Your task to perform on an android device: star an email in the gmail app Image 0: 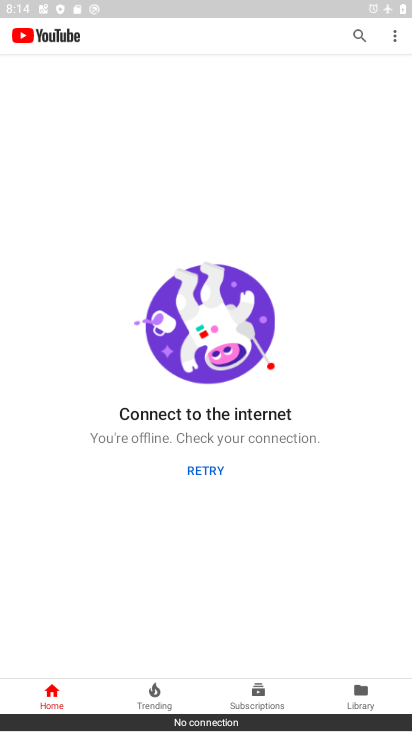
Step 0: press home button
Your task to perform on an android device: star an email in the gmail app Image 1: 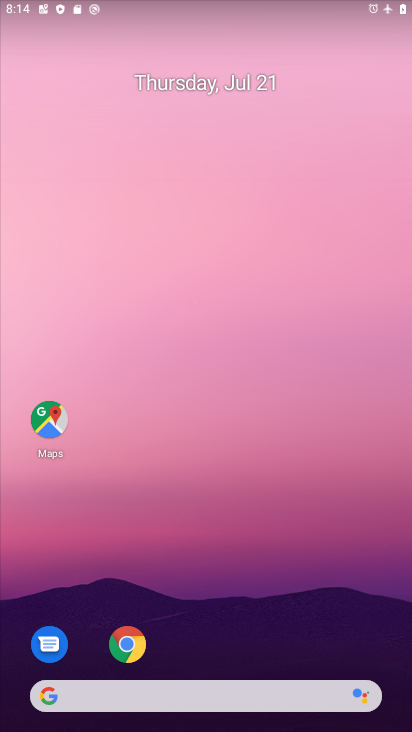
Step 1: drag from (213, 661) to (210, 192)
Your task to perform on an android device: star an email in the gmail app Image 2: 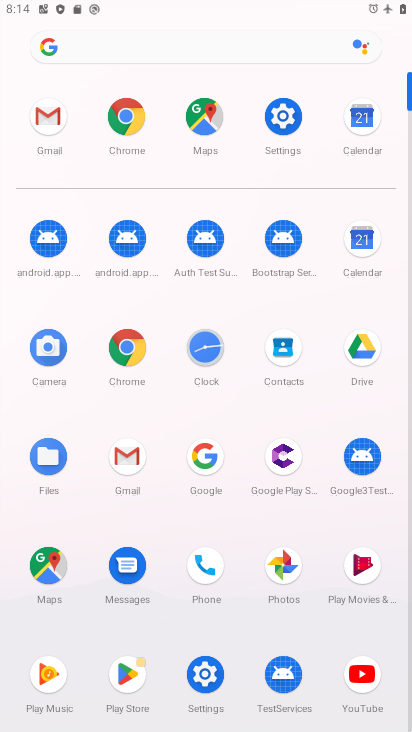
Step 2: click (44, 113)
Your task to perform on an android device: star an email in the gmail app Image 3: 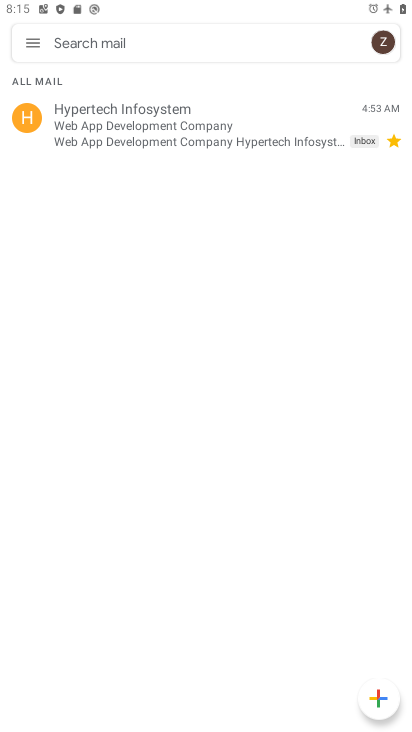
Step 3: task complete